Your task to perform on an android device: toggle data saver in the chrome app Image 0: 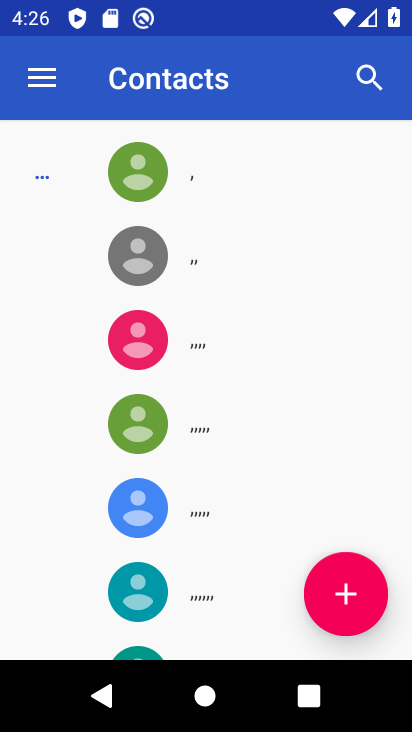
Step 0: press home button
Your task to perform on an android device: toggle data saver in the chrome app Image 1: 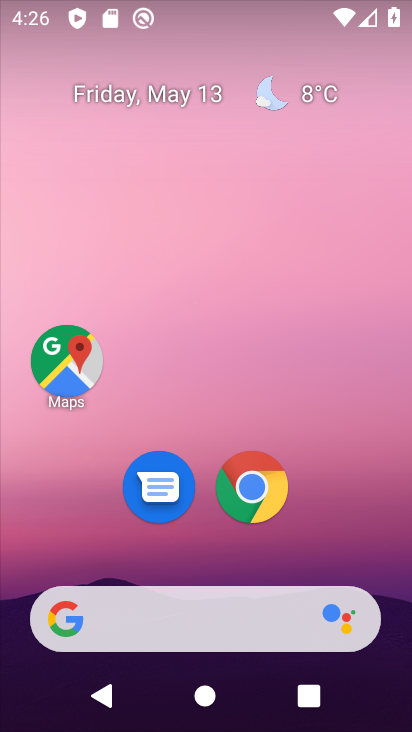
Step 1: click (238, 496)
Your task to perform on an android device: toggle data saver in the chrome app Image 2: 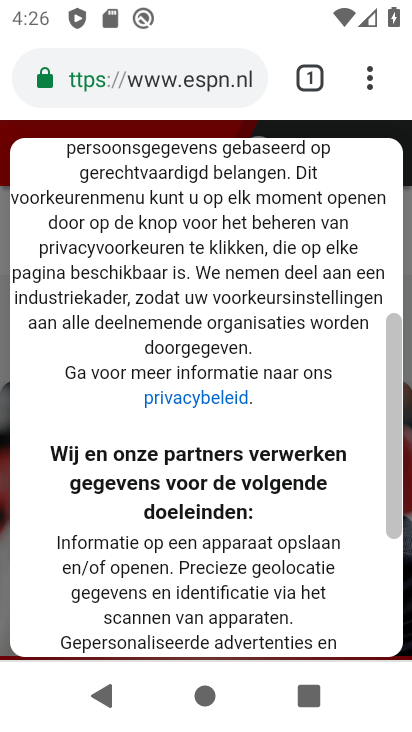
Step 2: click (383, 87)
Your task to perform on an android device: toggle data saver in the chrome app Image 3: 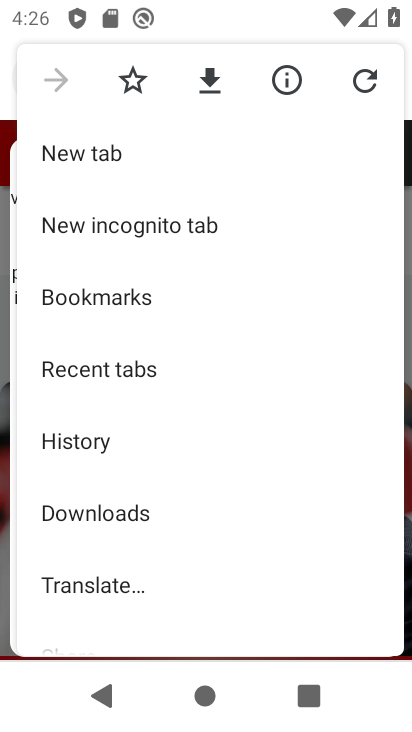
Step 3: drag from (165, 575) to (207, 318)
Your task to perform on an android device: toggle data saver in the chrome app Image 4: 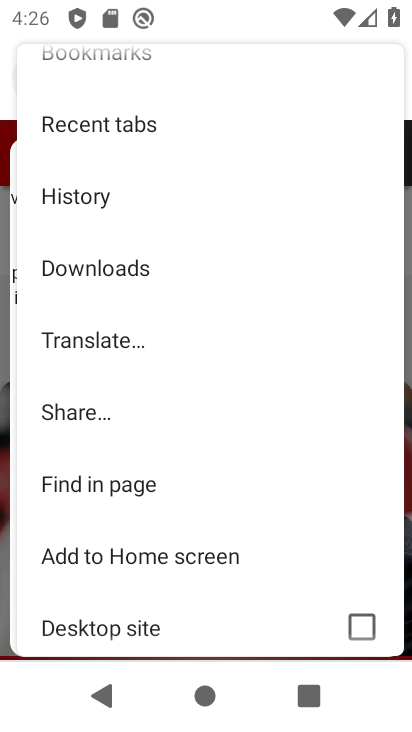
Step 4: drag from (179, 602) to (261, 297)
Your task to perform on an android device: toggle data saver in the chrome app Image 5: 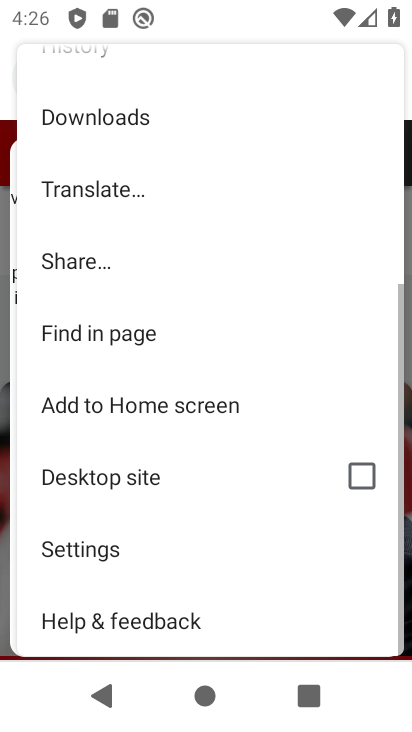
Step 5: click (149, 539)
Your task to perform on an android device: toggle data saver in the chrome app Image 6: 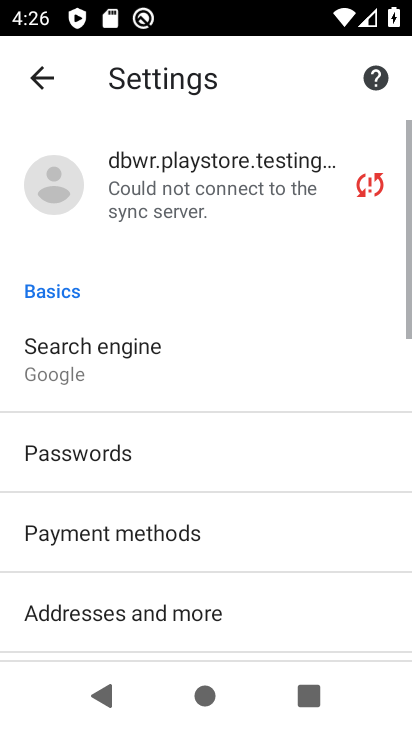
Step 6: drag from (202, 513) to (253, 269)
Your task to perform on an android device: toggle data saver in the chrome app Image 7: 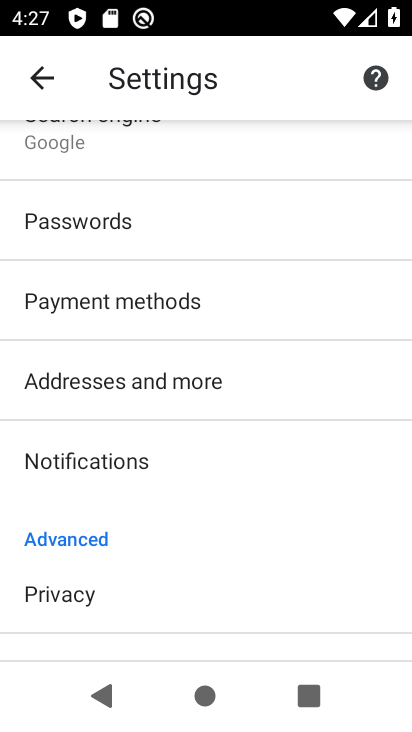
Step 7: drag from (184, 527) to (199, 287)
Your task to perform on an android device: toggle data saver in the chrome app Image 8: 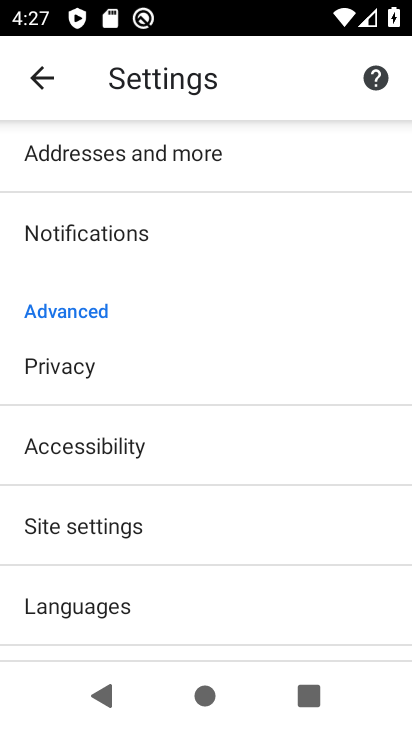
Step 8: drag from (172, 660) to (174, 391)
Your task to perform on an android device: toggle data saver in the chrome app Image 9: 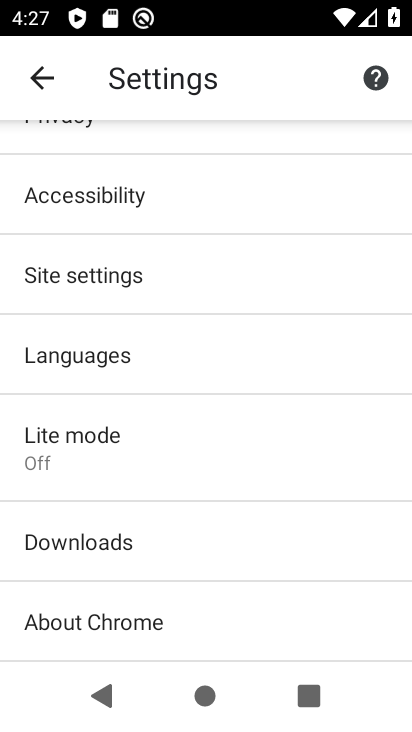
Step 9: click (137, 477)
Your task to perform on an android device: toggle data saver in the chrome app Image 10: 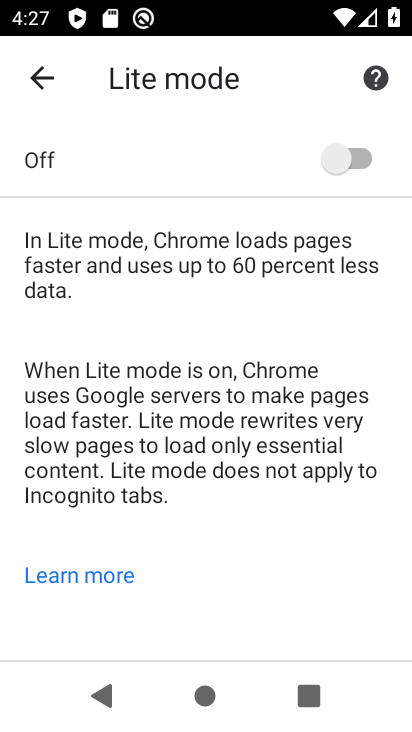
Step 10: click (366, 154)
Your task to perform on an android device: toggle data saver in the chrome app Image 11: 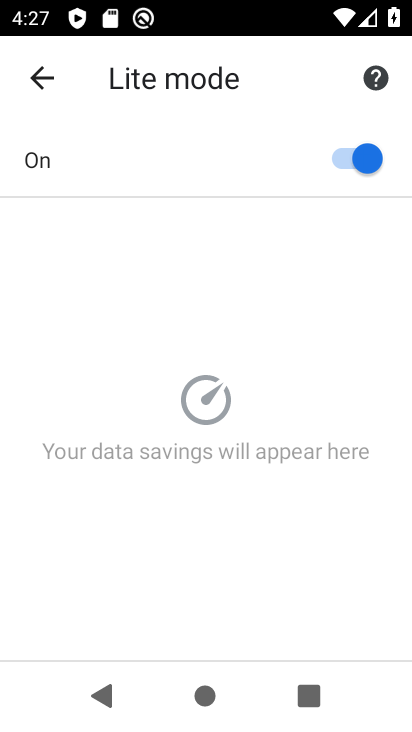
Step 11: task complete